Your task to perform on an android device: Go to sound settings Image 0: 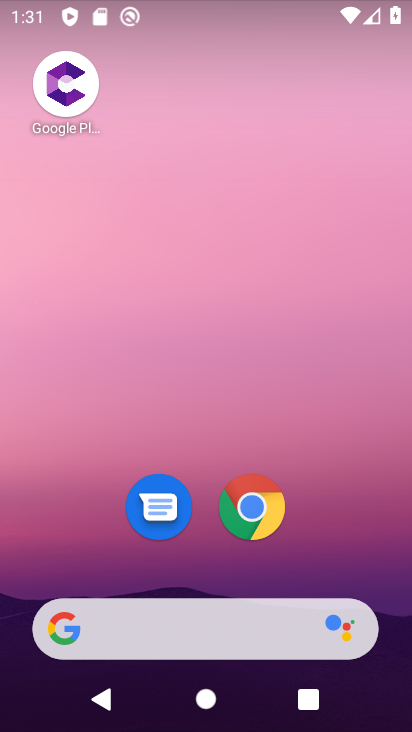
Step 0: drag from (198, 589) to (193, 51)
Your task to perform on an android device: Go to sound settings Image 1: 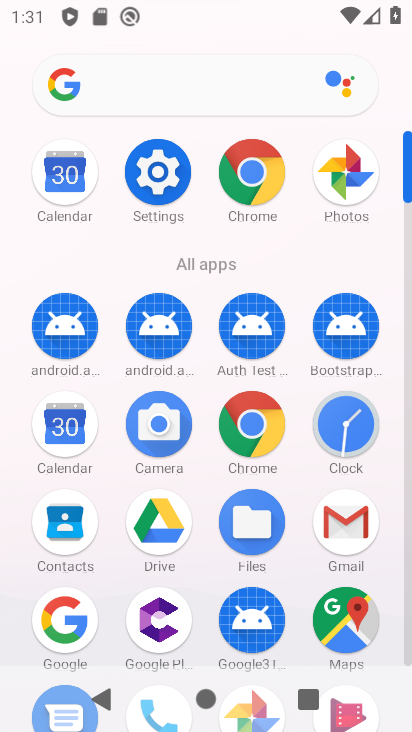
Step 1: click (147, 179)
Your task to perform on an android device: Go to sound settings Image 2: 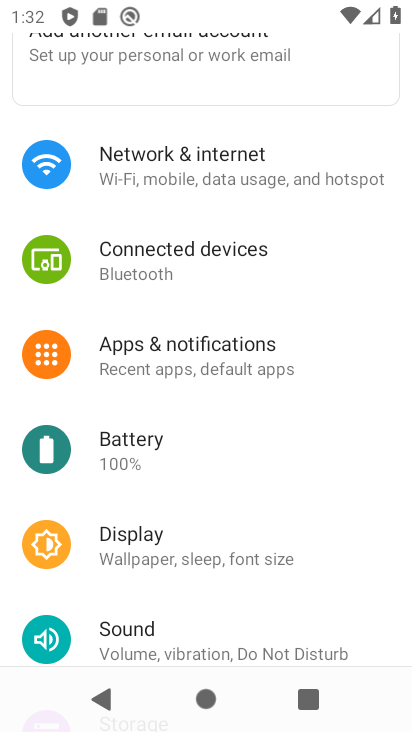
Step 2: drag from (204, 612) to (207, 270)
Your task to perform on an android device: Go to sound settings Image 3: 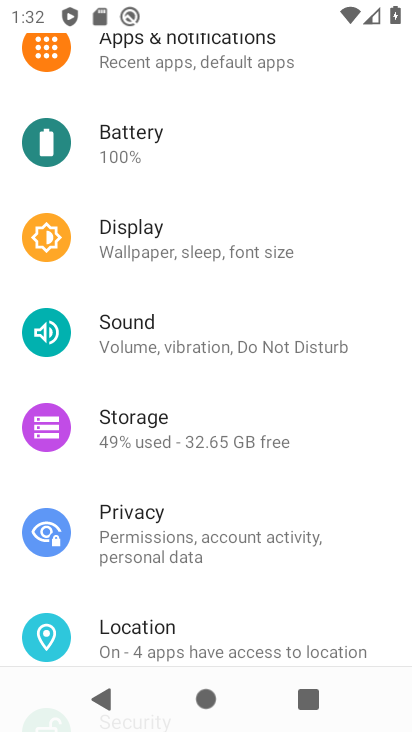
Step 3: click (142, 351)
Your task to perform on an android device: Go to sound settings Image 4: 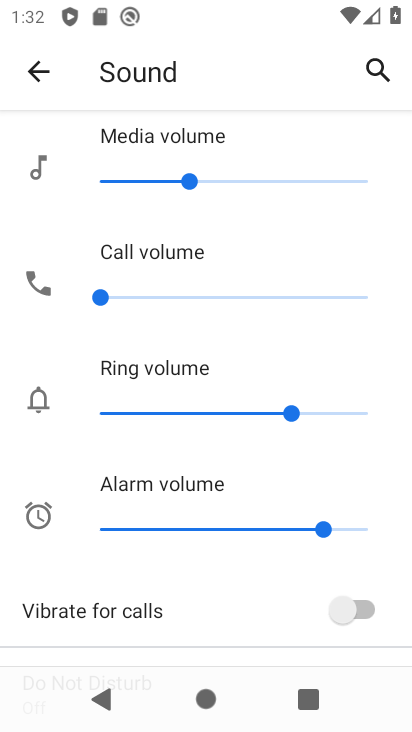
Step 4: task complete